Your task to perform on an android device: show emergency info Image 0: 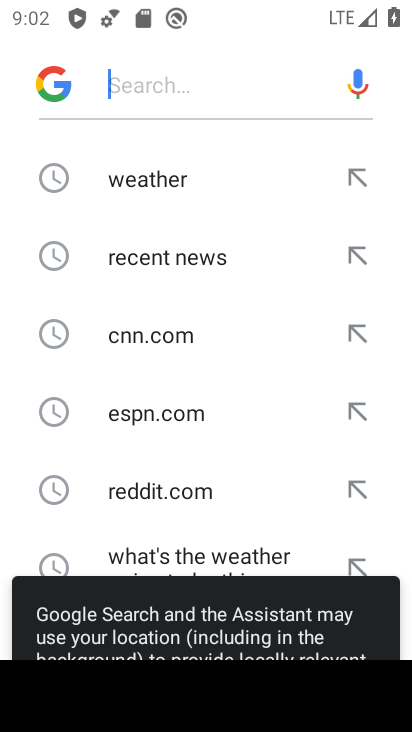
Step 0: press home button
Your task to perform on an android device: show emergency info Image 1: 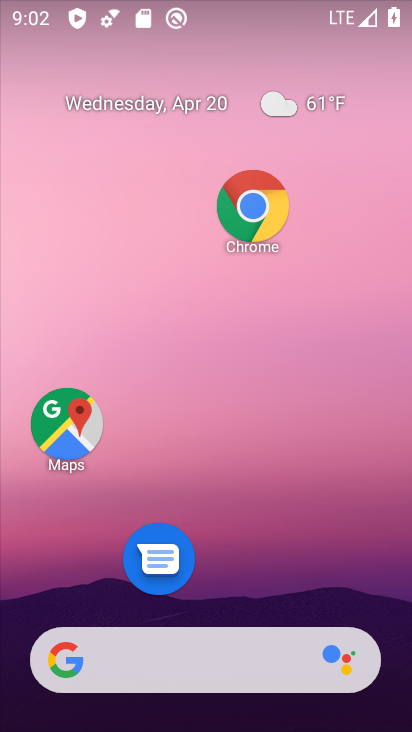
Step 1: drag from (307, 442) to (312, 175)
Your task to perform on an android device: show emergency info Image 2: 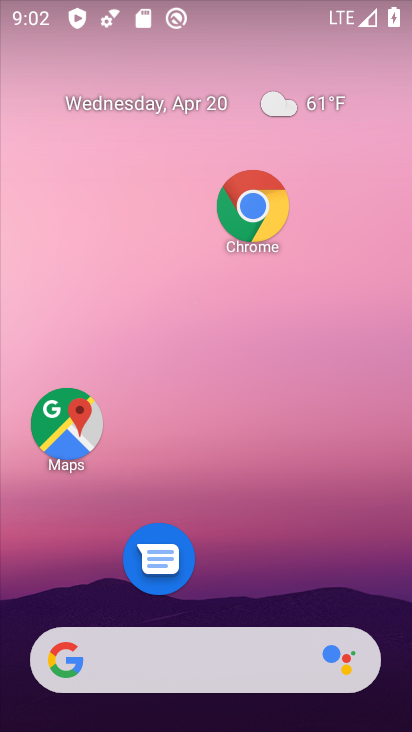
Step 2: drag from (287, 468) to (290, 155)
Your task to perform on an android device: show emergency info Image 3: 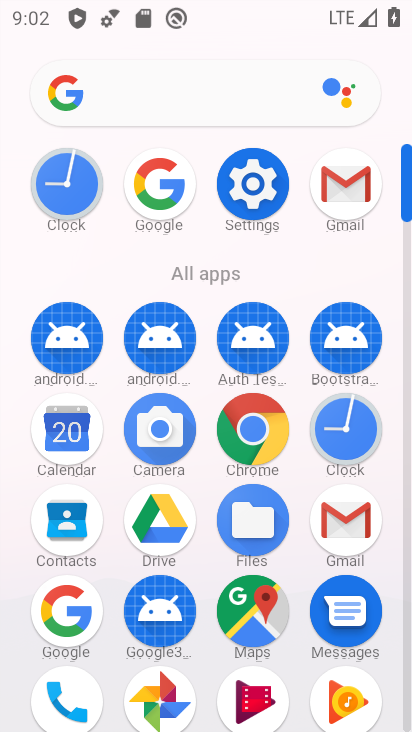
Step 3: click (266, 206)
Your task to perform on an android device: show emergency info Image 4: 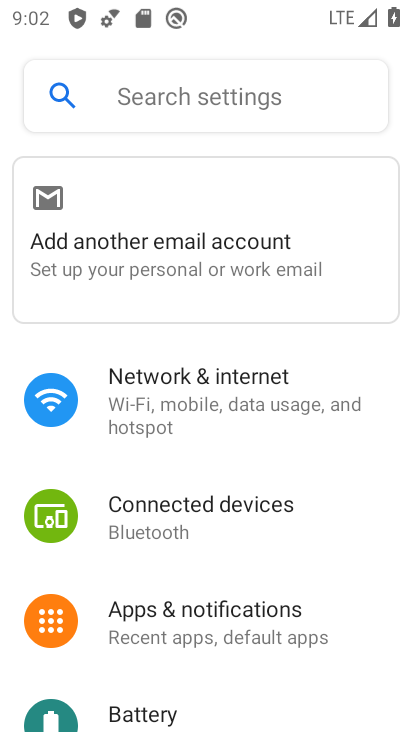
Step 4: click (135, 96)
Your task to perform on an android device: show emergency info Image 5: 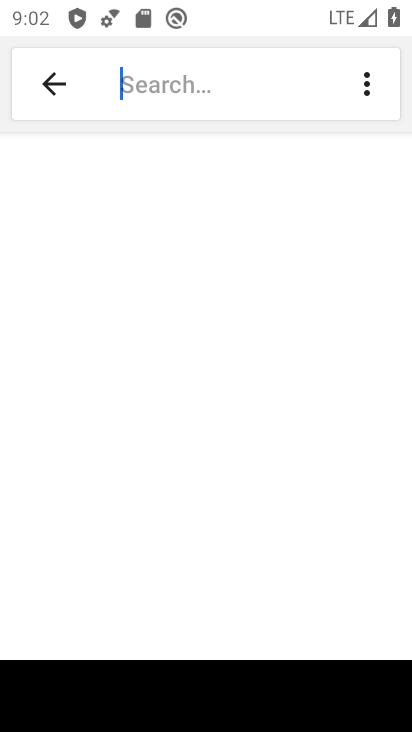
Step 5: type "emergency info"
Your task to perform on an android device: show emergency info Image 6: 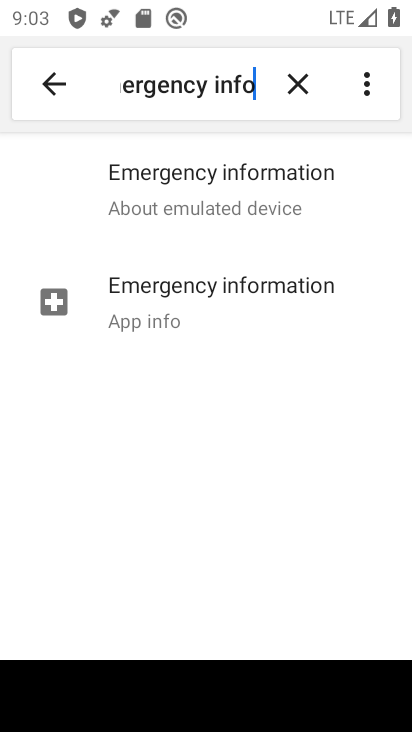
Step 6: click (157, 315)
Your task to perform on an android device: show emergency info Image 7: 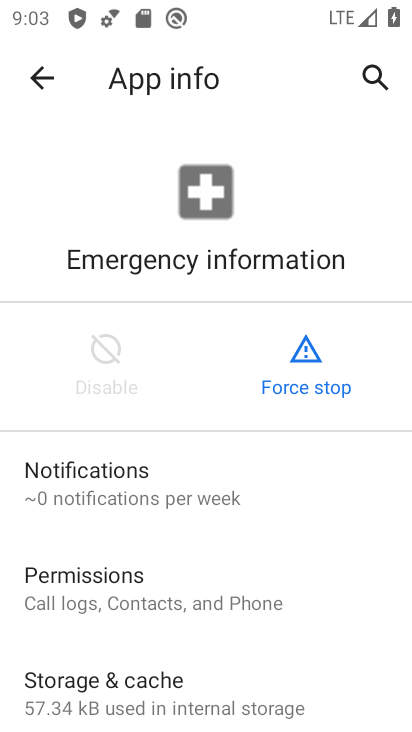
Step 7: task complete